Your task to perform on an android device: Show me the alarms in the clock app Image 0: 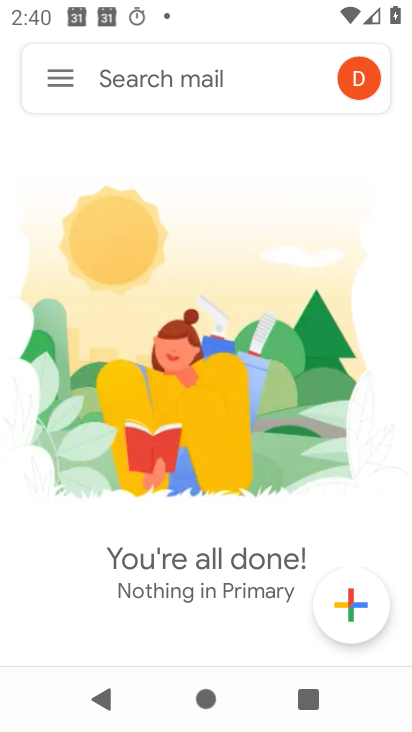
Step 0: press home button
Your task to perform on an android device: Show me the alarms in the clock app Image 1: 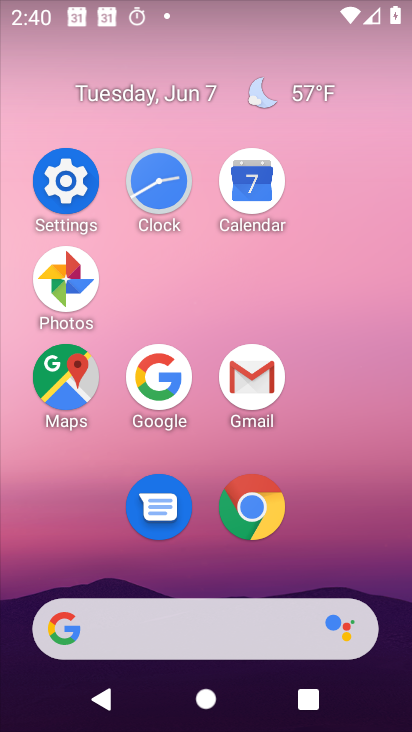
Step 1: click (163, 193)
Your task to perform on an android device: Show me the alarms in the clock app Image 2: 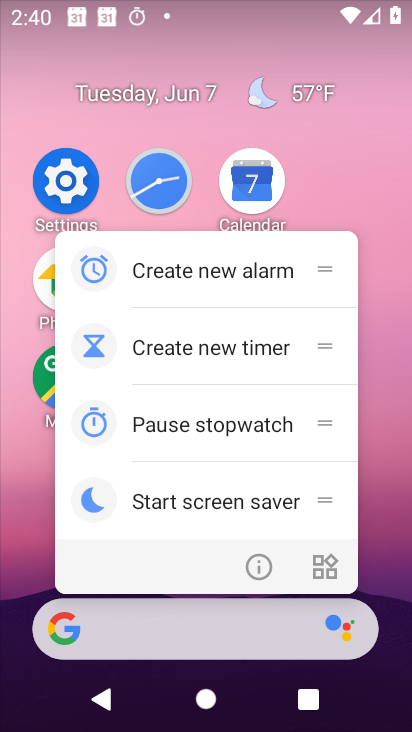
Step 2: click (162, 178)
Your task to perform on an android device: Show me the alarms in the clock app Image 3: 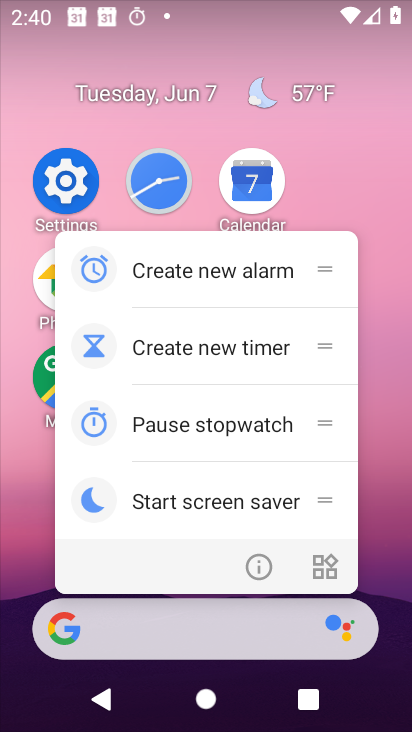
Step 3: click (130, 178)
Your task to perform on an android device: Show me the alarms in the clock app Image 4: 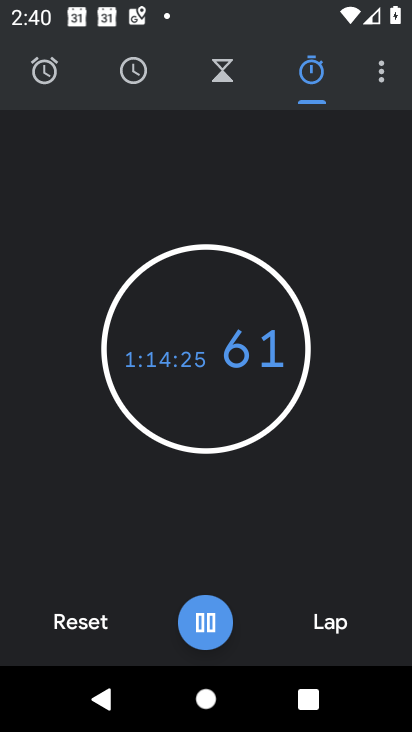
Step 4: click (40, 51)
Your task to perform on an android device: Show me the alarms in the clock app Image 5: 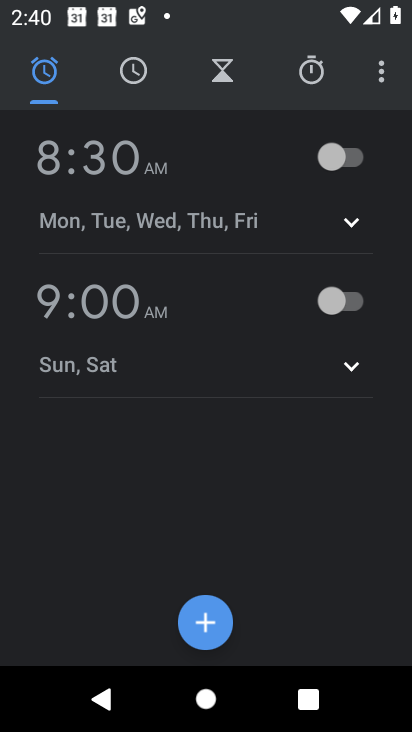
Step 5: task complete